Your task to perform on an android device: Show me the alarms in the clock app Image 0: 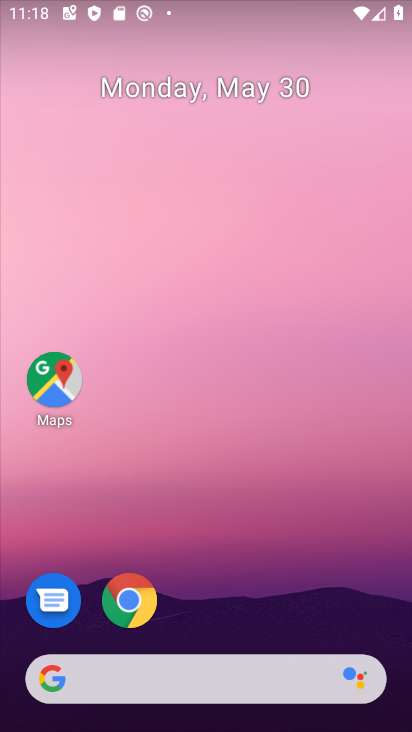
Step 0: drag from (239, 725) to (215, 69)
Your task to perform on an android device: Show me the alarms in the clock app Image 1: 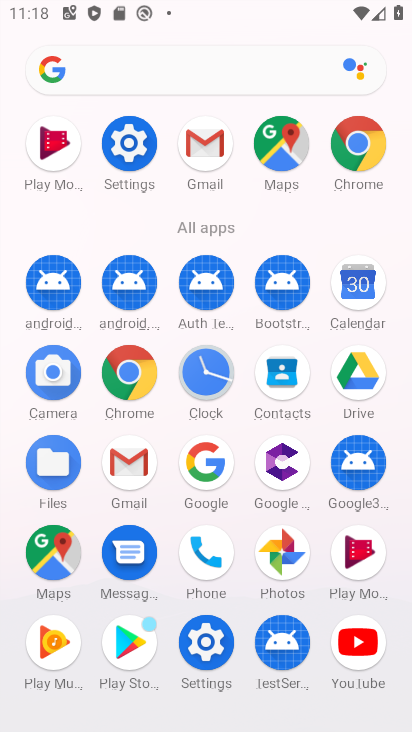
Step 1: click (205, 373)
Your task to perform on an android device: Show me the alarms in the clock app Image 2: 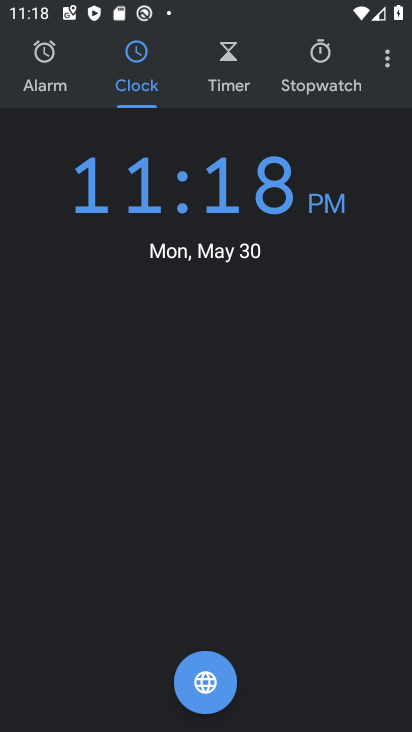
Step 2: click (40, 72)
Your task to perform on an android device: Show me the alarms in the clock app Image 3: 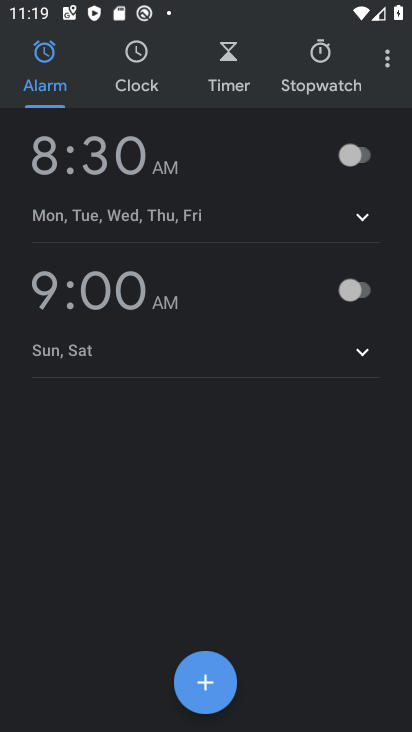
Step 3: task complete